Your task to perform on an android device: Open Wikipedia Image 0: 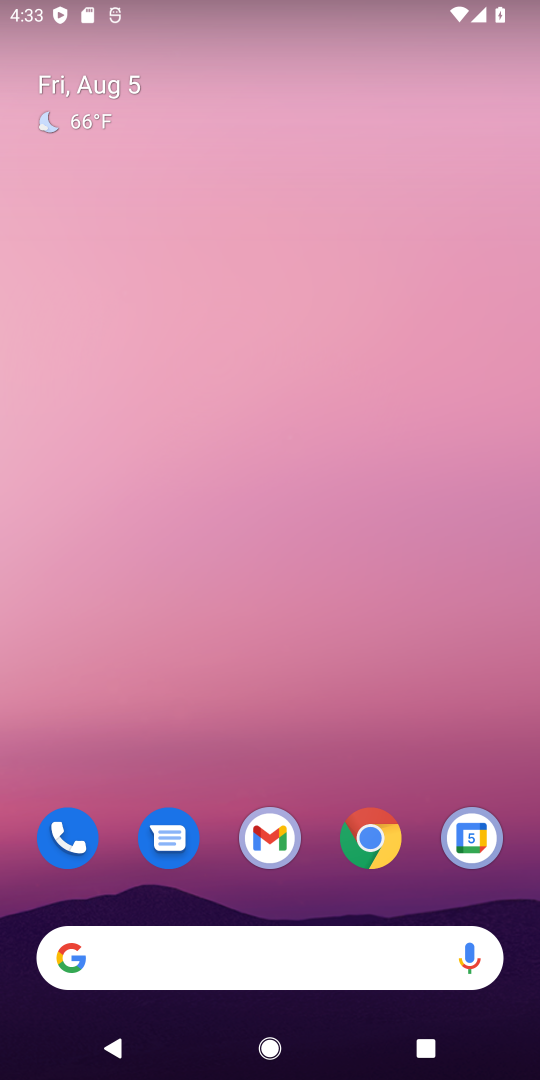
Step 0: drag from (161, 899) to (300, 145)
Your task to perform on an android device: Open Wikipedia Image 1: 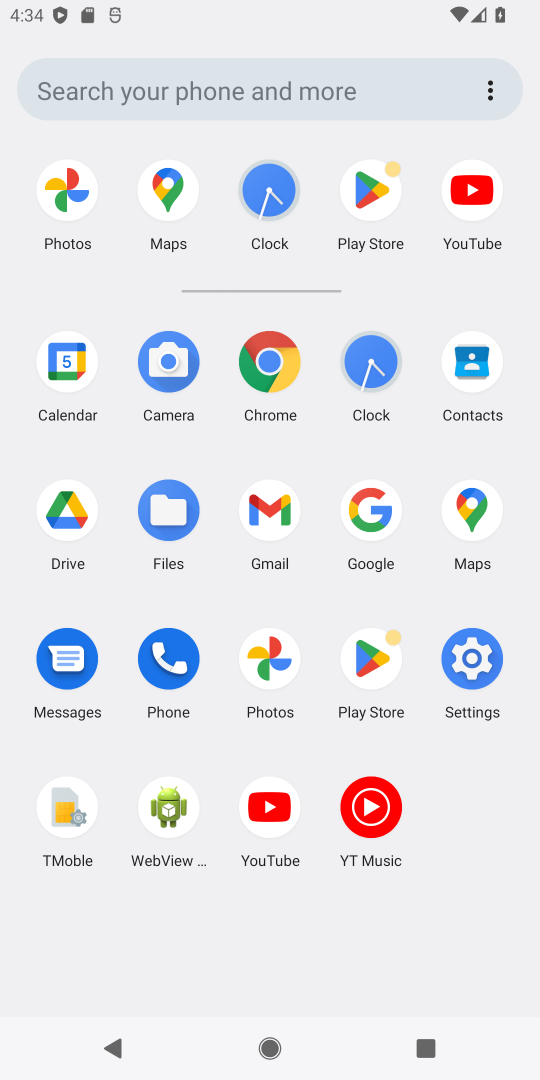
Step 1: click (274, 377)
Your task to perform on an android device: Open Wikipedia Image 2: 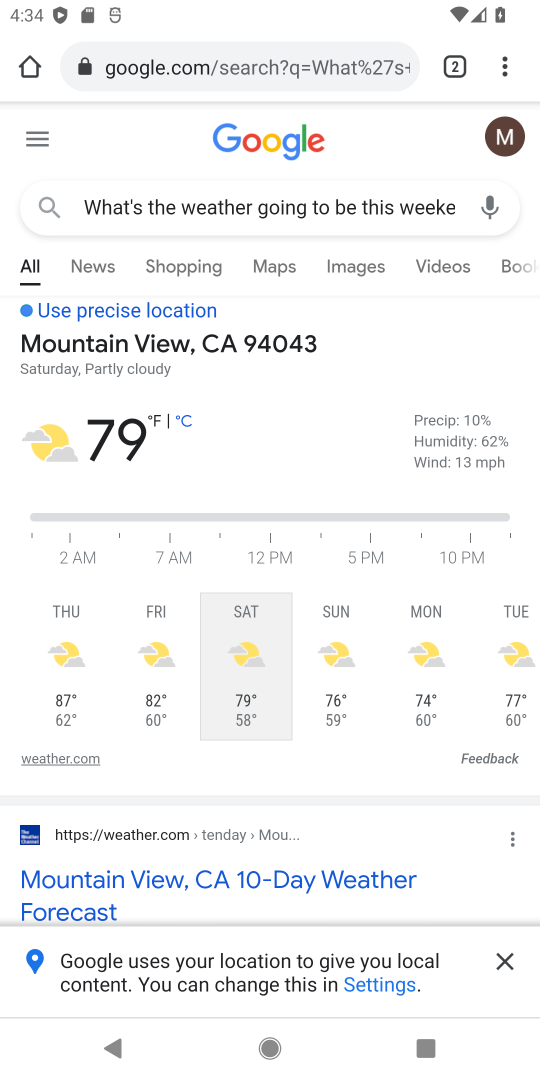
Step 2: click (509, 58)
Your task to perform on an android device: Open Wikipedia Image 3: 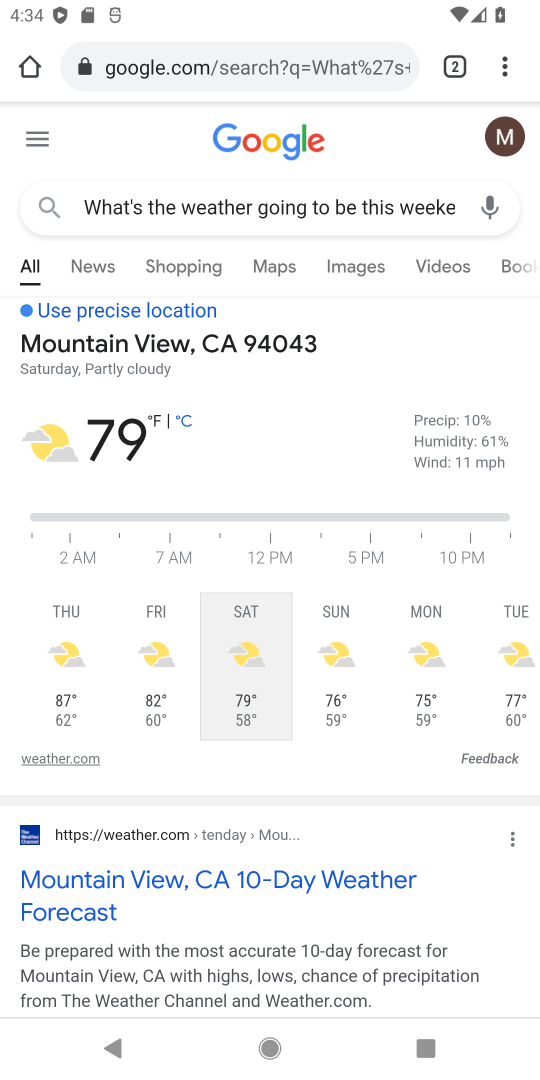
Step 3: click (511, 47)
Your task to perform on an android device: Open Wikipedia Image 4: 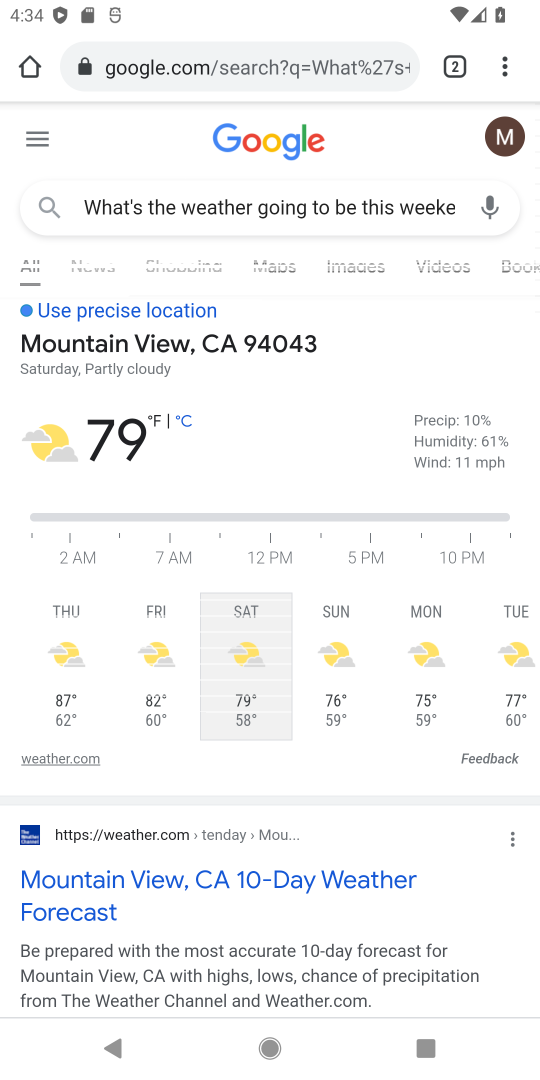
Step 4: click (511, 73)
Your task to perform on an android device: Open Wikipedia Image 5: 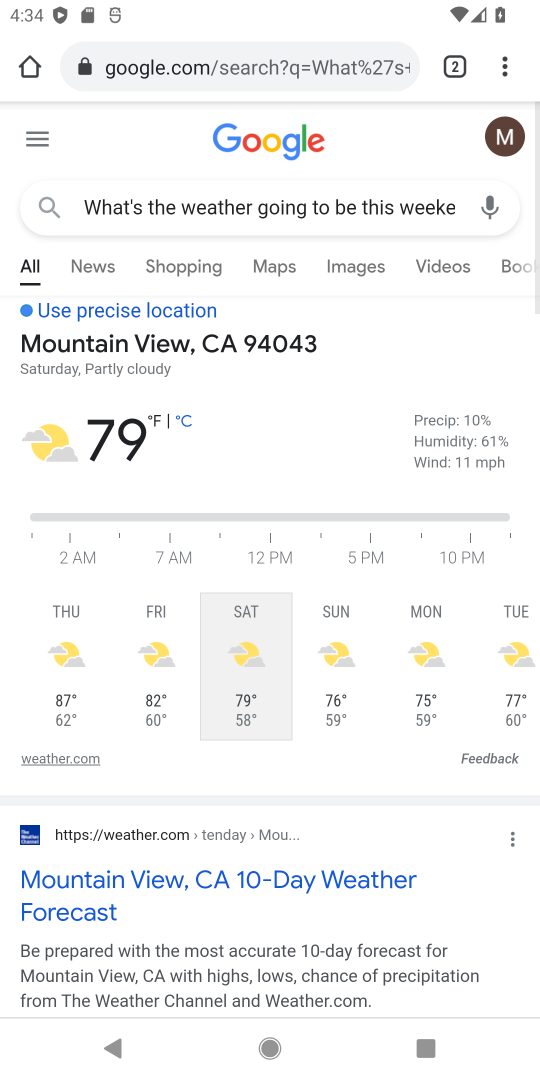
Step 5: click (495, 70)
Your task to perform on an android device: Open Wikipedia Image 6: 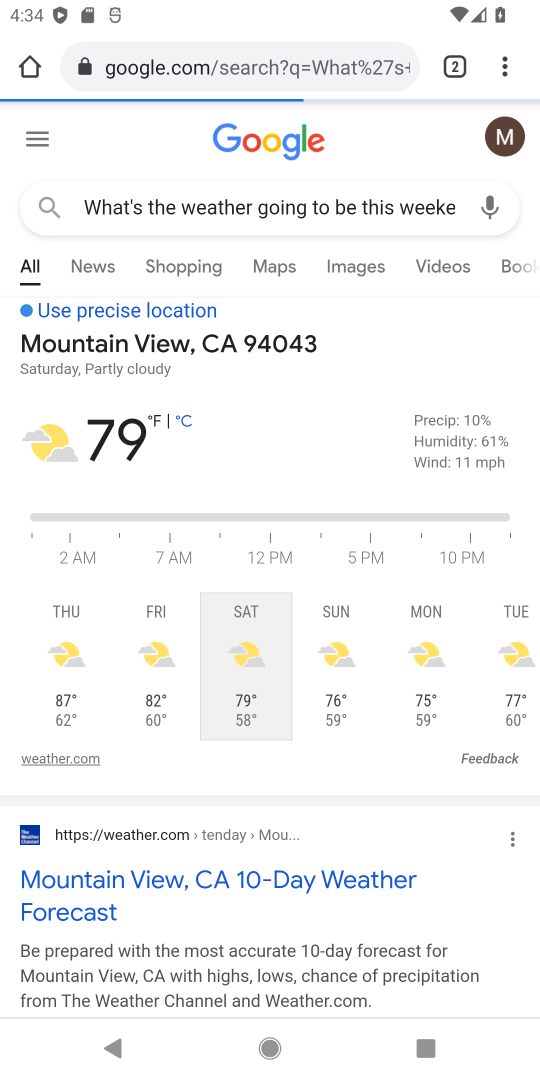
Step 6: click (508, 63)
Your task to perform on an android device: Open Wikipedia Image 7: 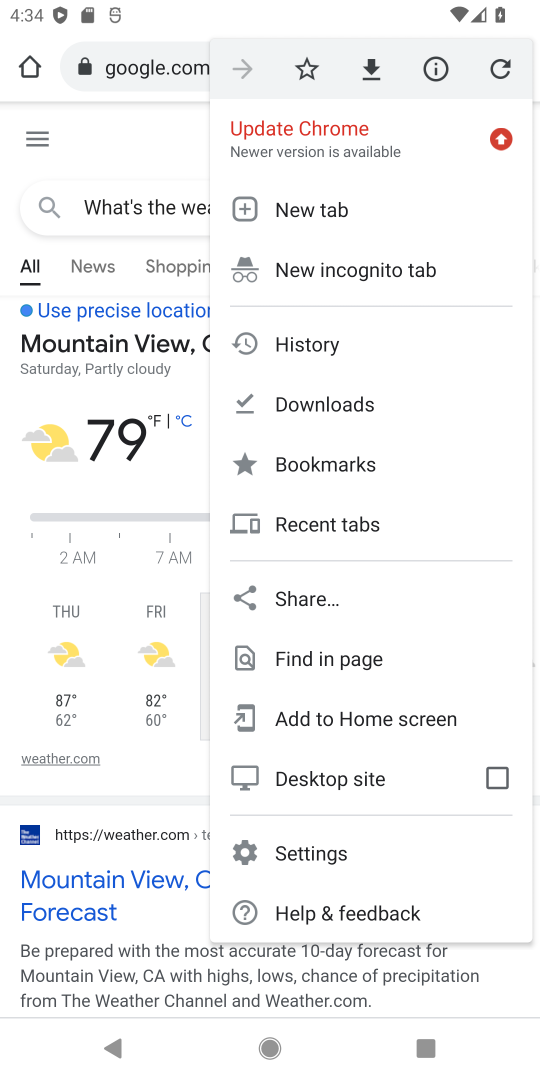
Step 7: click (333, 212)
Your task to perform on an android device: Open Wikipedia Image 8: 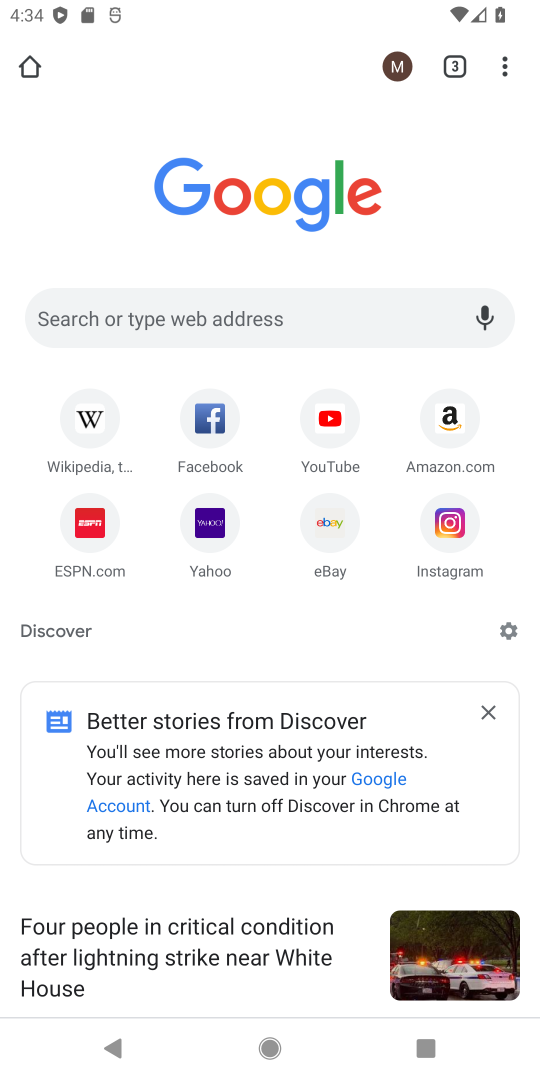
Step 8: click (102, 419)
Your task to perform on an android device: Open Wikipedia Image 9: 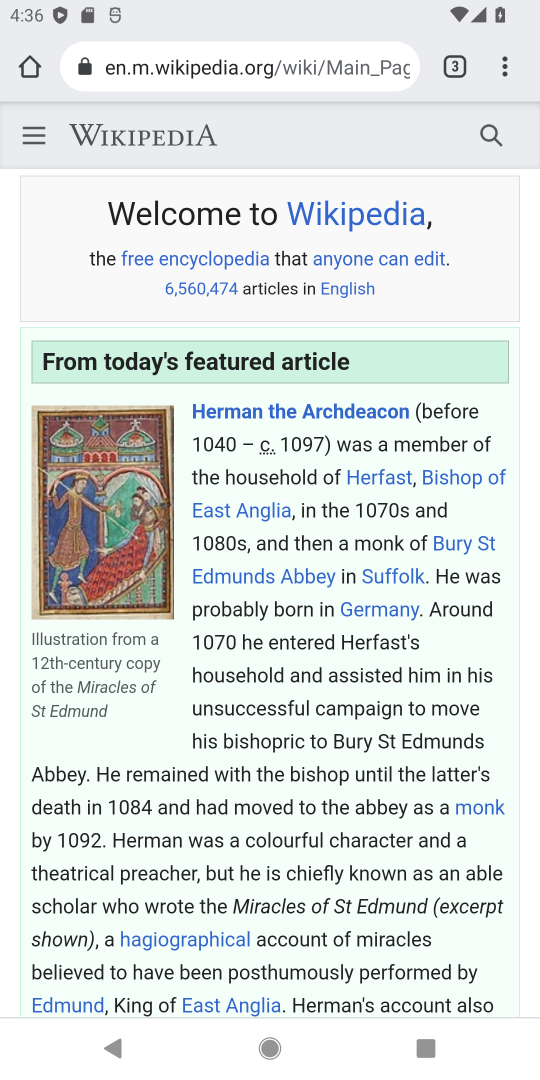
Step 9: task complete